Your task to perform on an android device: change timer sound Image 0: 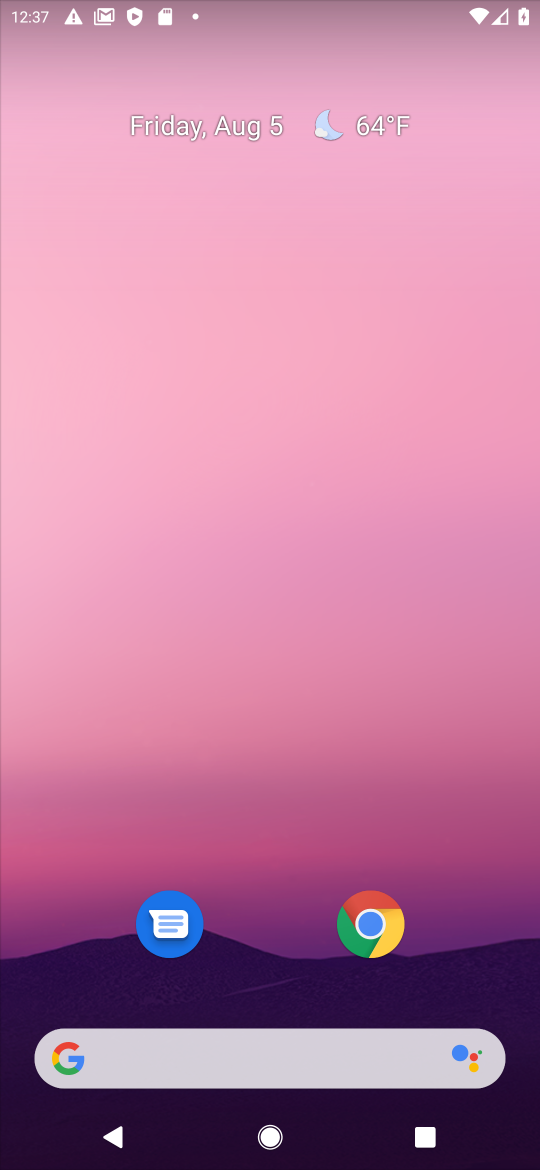
Step 0: press home button
Your task to perform on an android device: change timer sound Image 1: 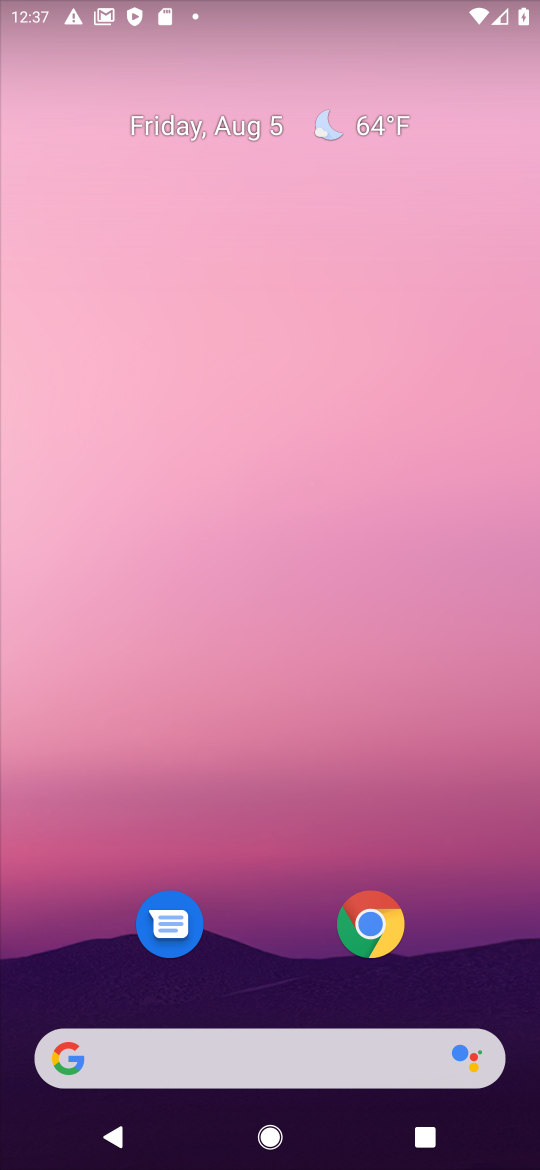
Step 1: drag from (277, 997) to (197, 65)
Your task to perform on an android device: change timer sound Image 2: 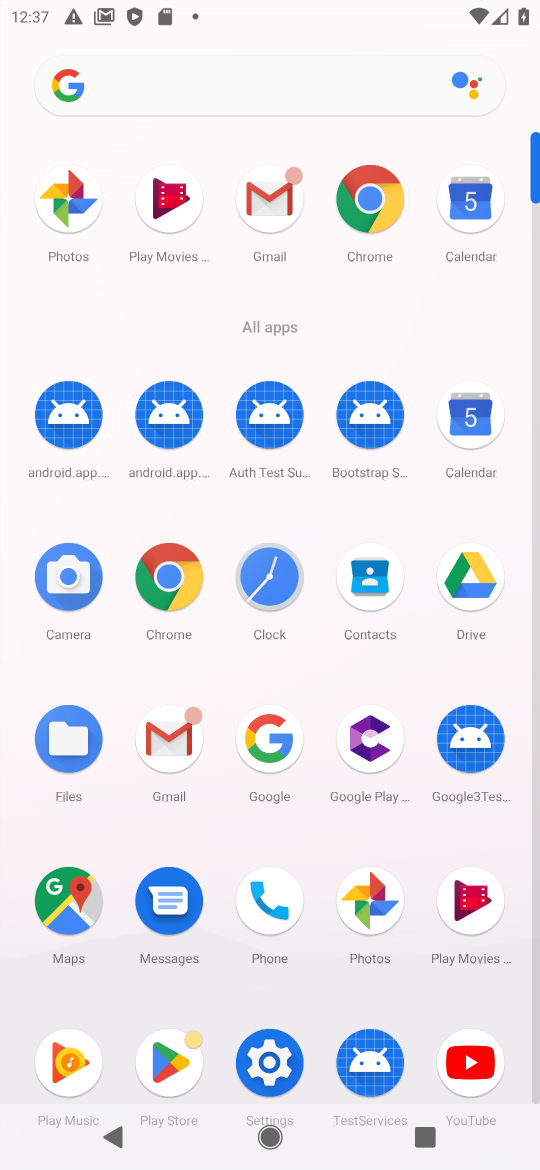
Step 2: click (273, 597)
Your task to perform on an android device: change timer sound Image 3: 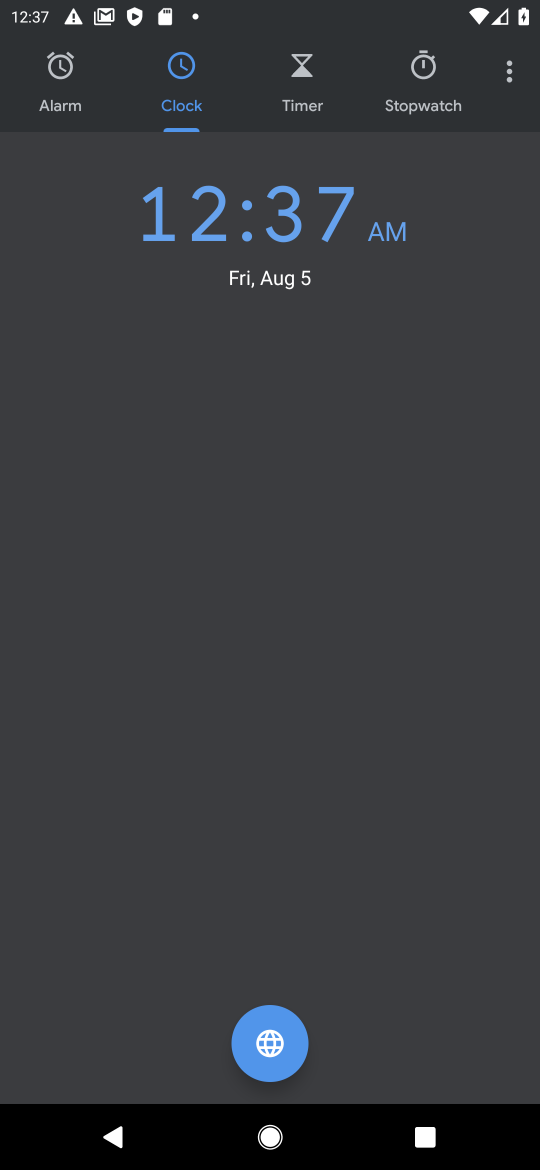
Step 3: click (512, 78)
Your task to perform on an android device: change timer sound Image 4: 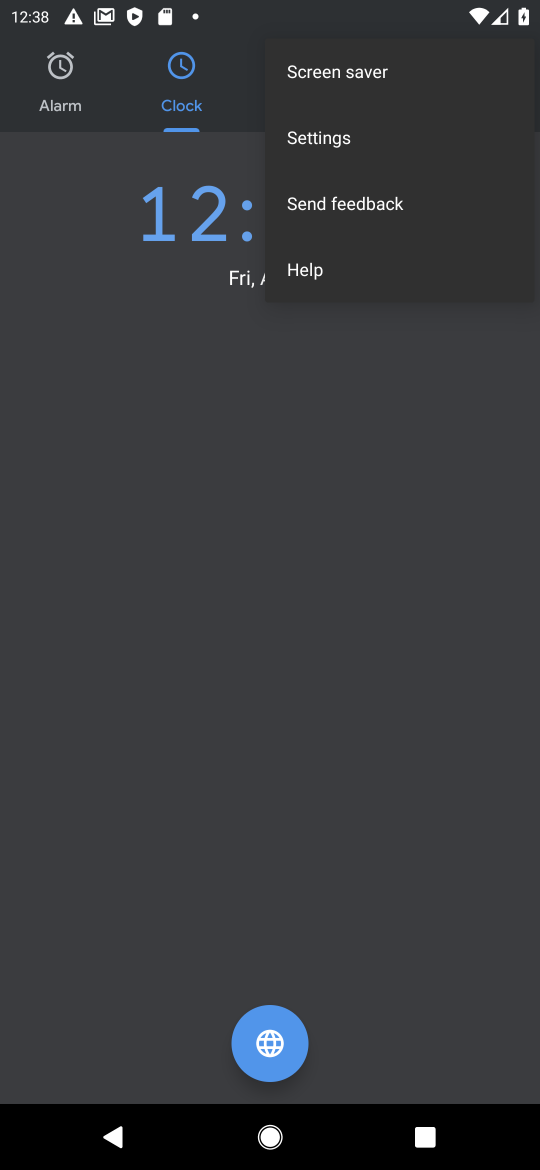
Step 4: click (316, 143)
Your task to perform on an android device: change timer sound Image 5: 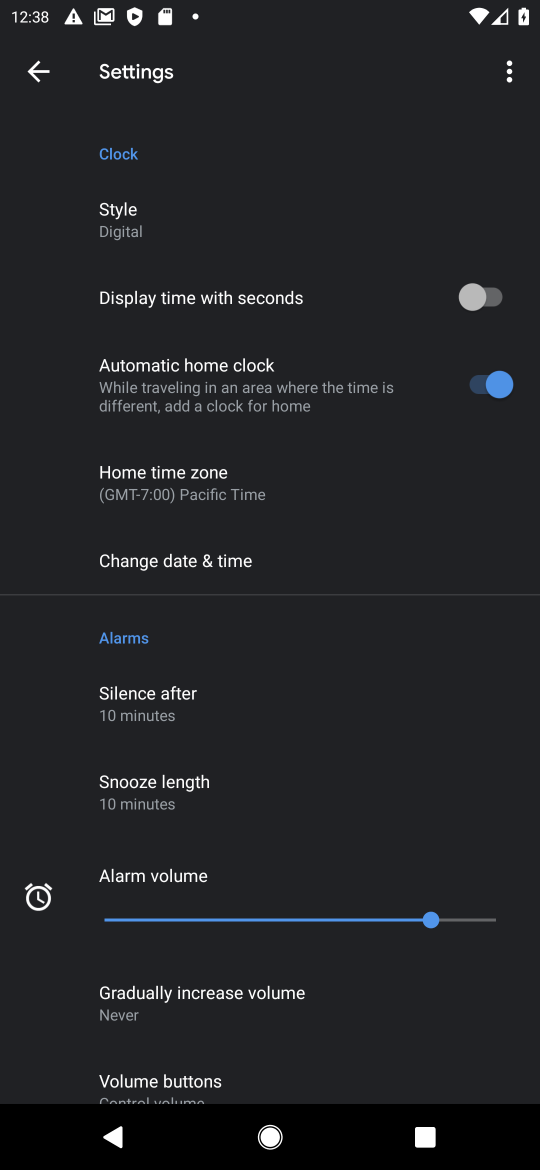
Step 5: drag from (377, 1003) to (239, 386)
Your task to perform on an android device: change timer sound Image 6: 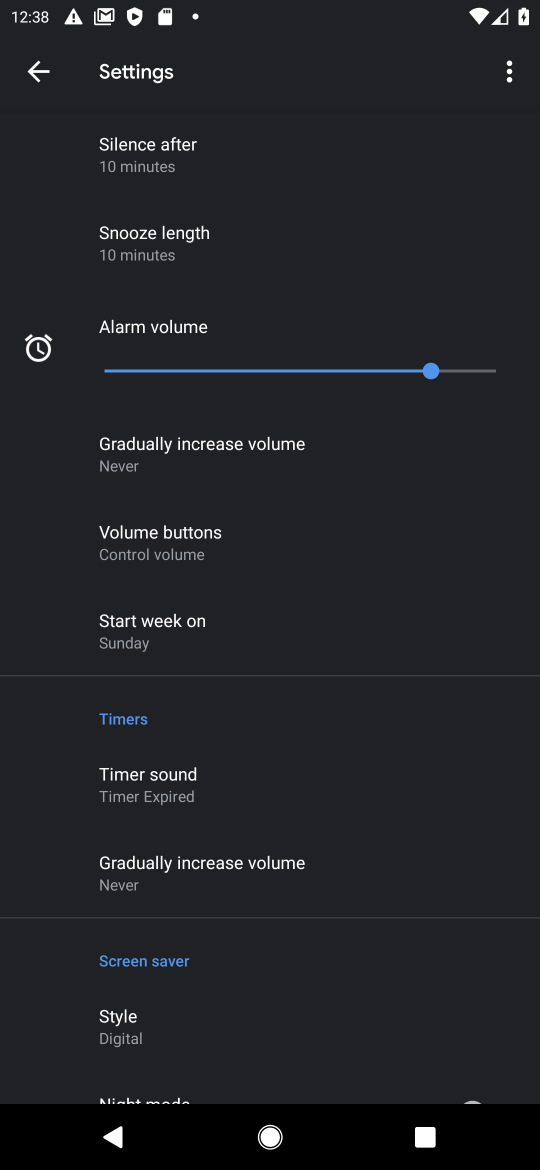
Step 6: click (152, 782)
Your task to perform on an android device: change timer sound Image 7: 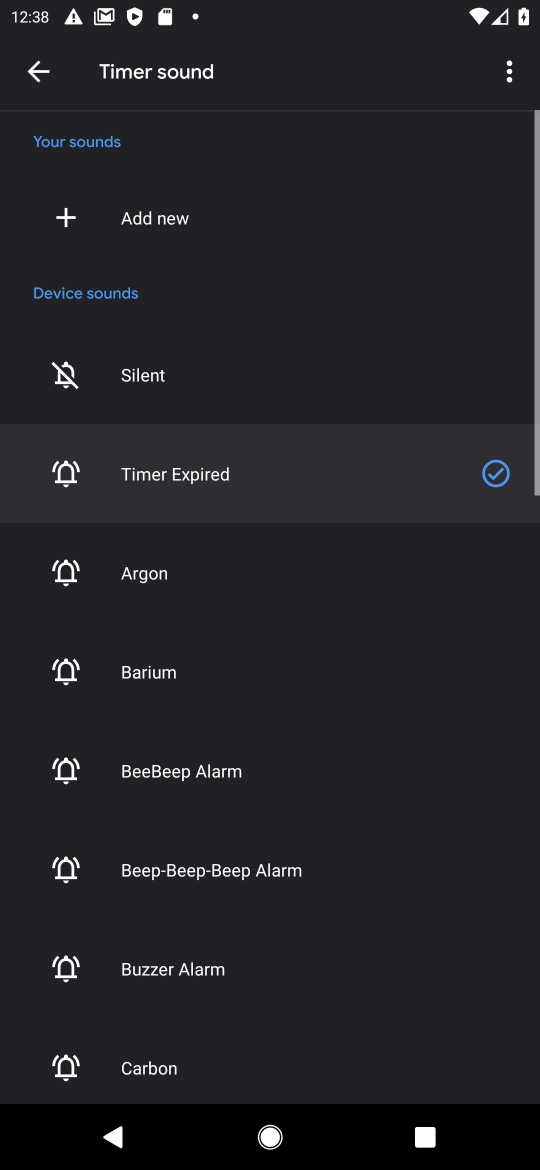
Step 7: click (162, 582)
Your task to perform on an android device: change timer sound Image 8: 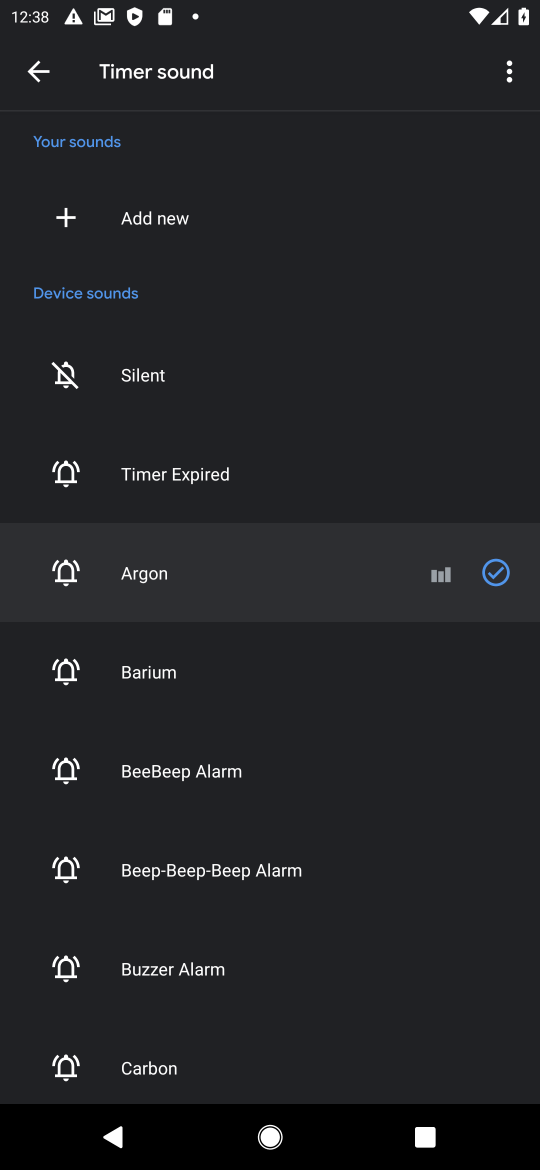
Step 8: task complete